Your task to perform on an android device: set default search engine in the chrome app Image 0: 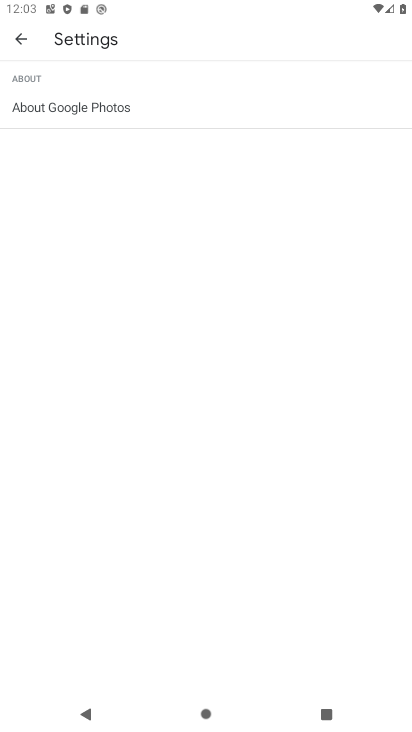
Step 0: press home button
Your task to perform on an android device: set default search engine in the chrome app Image 1: 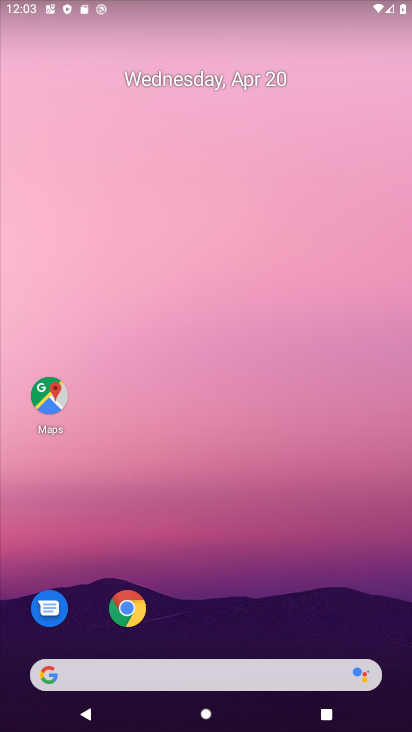
Step 1: click (126, 623)
Your task to perform on an android device: set default search engine in the chrome app Image 2: 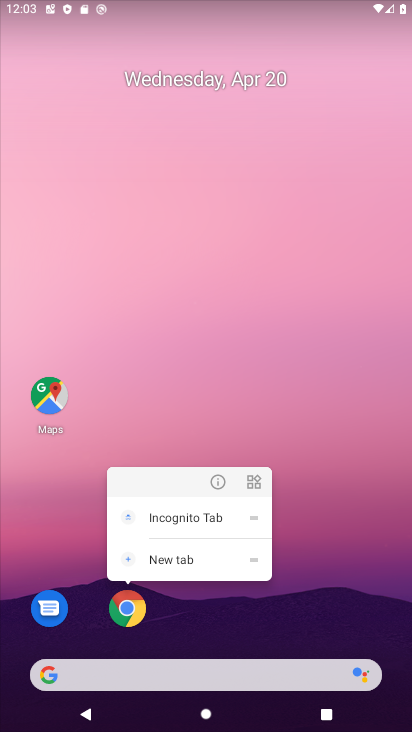
Step 2: click (123, 606)
Your task to perform on an android device: set default search engine in the chrome app Image 3: 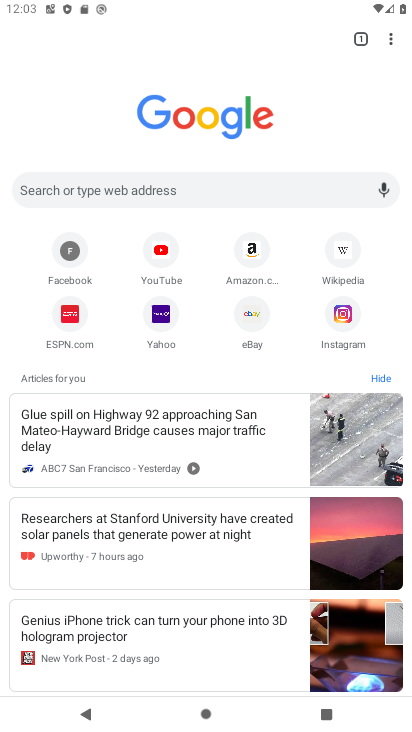
Step 3: click (389, 43)
Your task to perform on an android device: set default search engine in the chrome app Image 4: 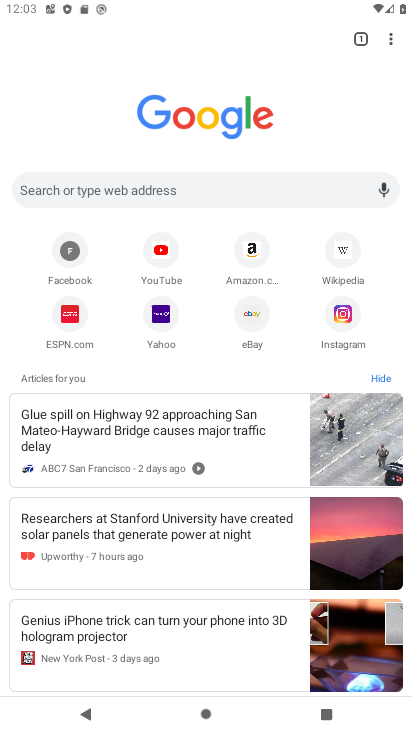
Step 4: click (389, 43)
Your task to perform on an android device: set default search engine in the chrome app Image 5: 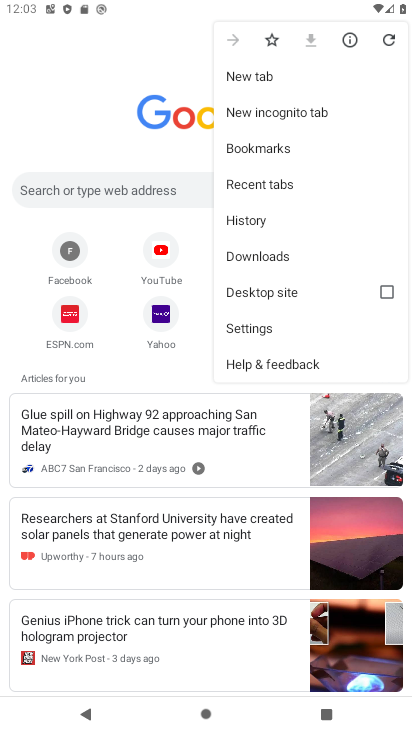
Step 5: click (281, 326)
Your task to perform on an android device: set default search engine in the chrome app Image 6: 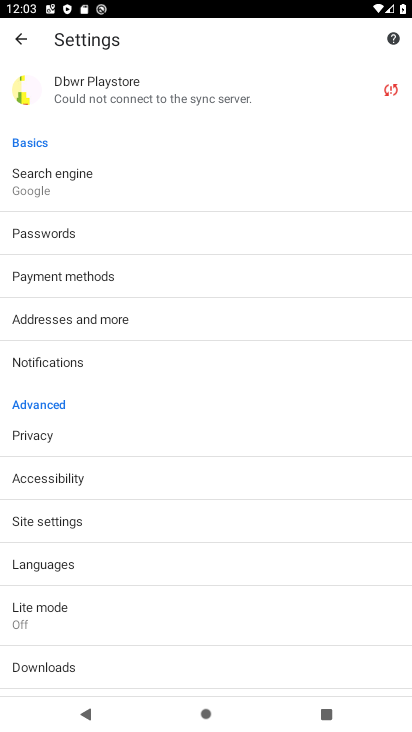
Step 6: click (51, 199)
Your task to perform on an android device: set default search engine in the chrome app Image 7: 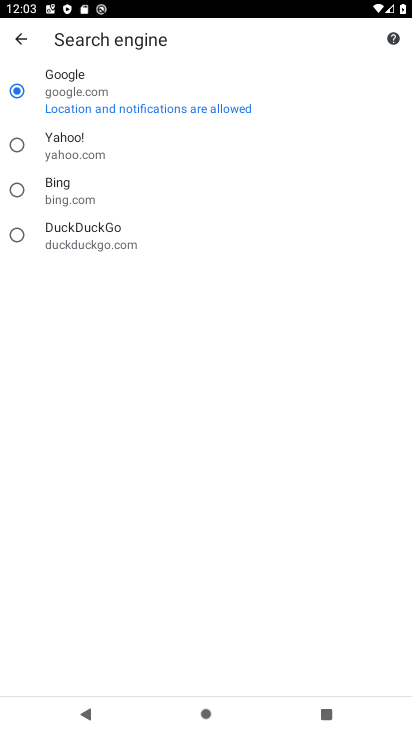
Step 7: task complete